Your task to perform on an android device: turn on notifications settings in the gmail app Image 0: 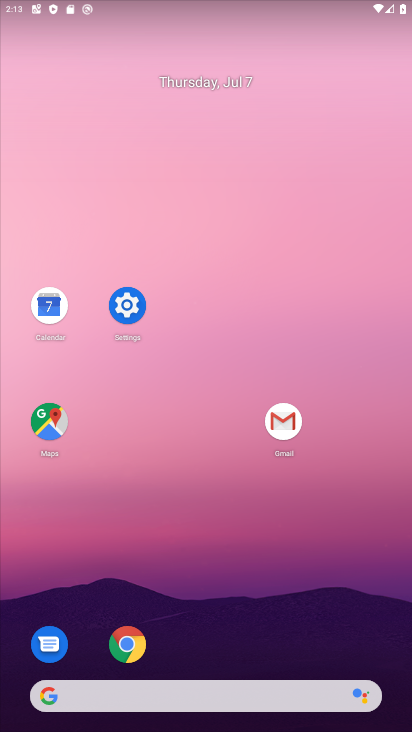
Step 0: click (281, 415)
Your task to perform on an android device: turn on notifications settings in the gmail app Image 1: 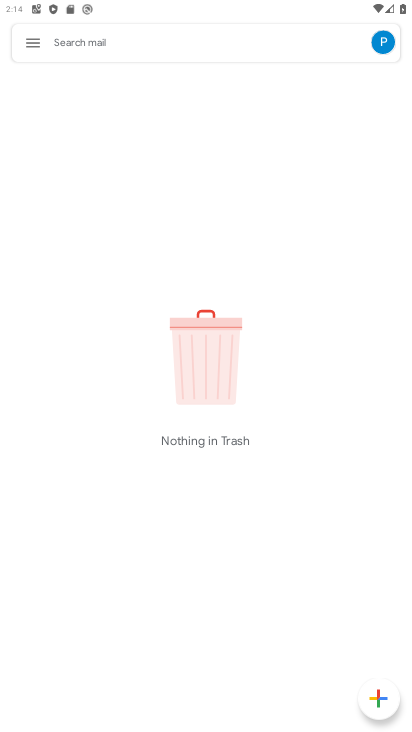
Step 1: click (28, 44)
Your task to perform on an android device: turn on notifications settings in the gmail app Image 2: 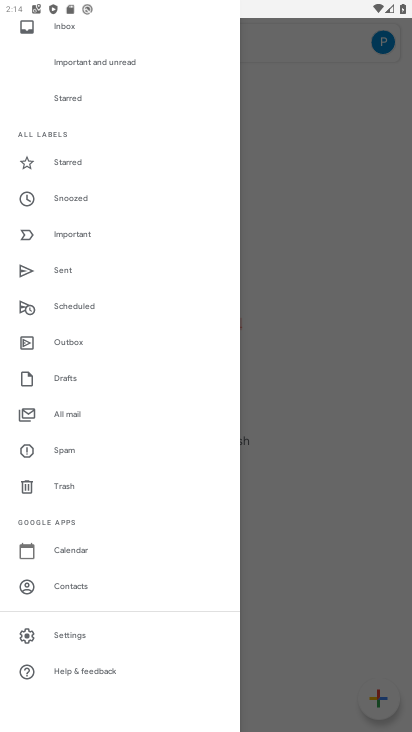
Step 2: click (70, 641)
Your task to perform on an android device: turn on notifications settings in the gmail app Image 3: 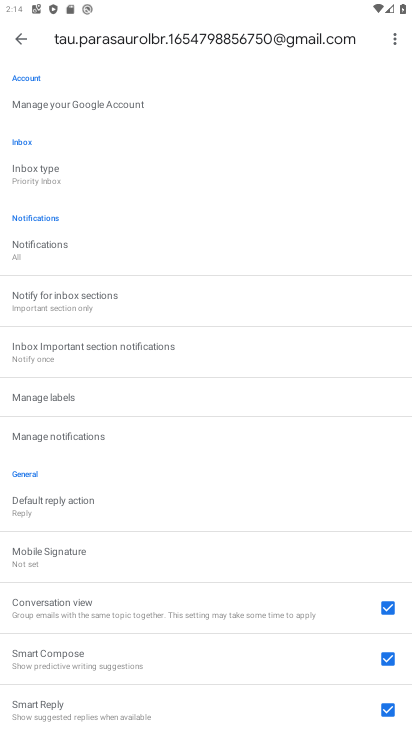
Step 3: click (44, 245)
Your task to perform on an android device: turn on notifications settings in the gmail app Image 4: 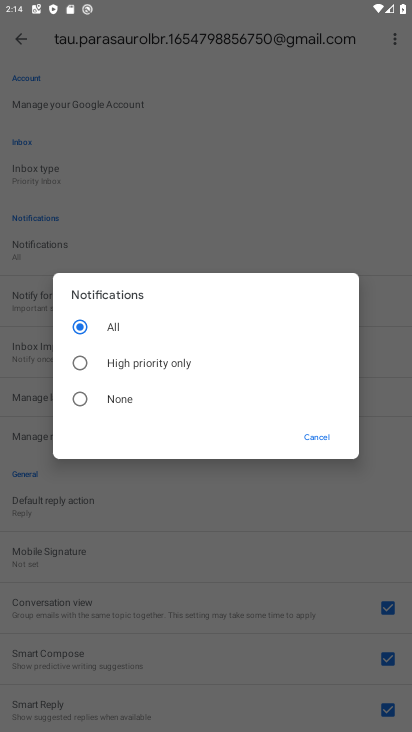
Step 4: click (79, 167)
Your task to perform on an android device: turn on notifications settings in the gmail app Image 5: 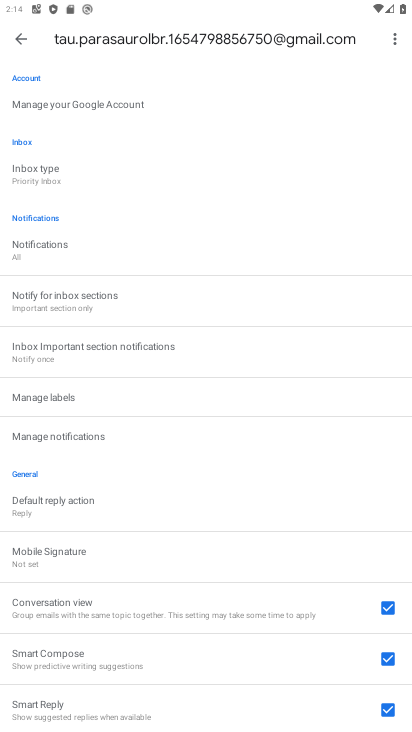
Step 5: click (308, 439)
Your task to perform on an android device: turn on notifications settings in the gmail app Image 6: 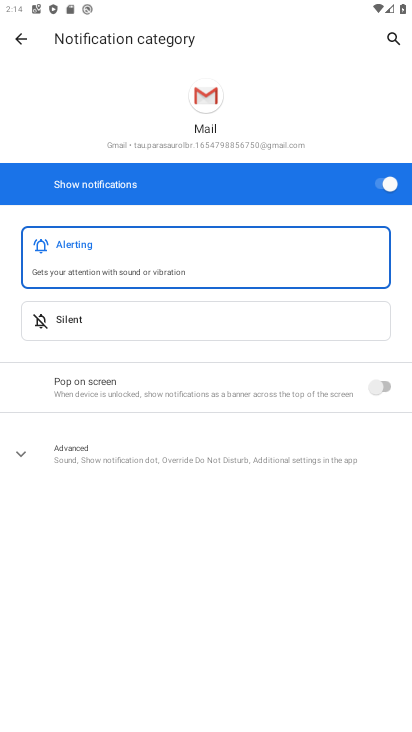
Step 6: click (18, 42)
Your task to perform on an android device: turn on notifications settings in the gmail app Image 7: 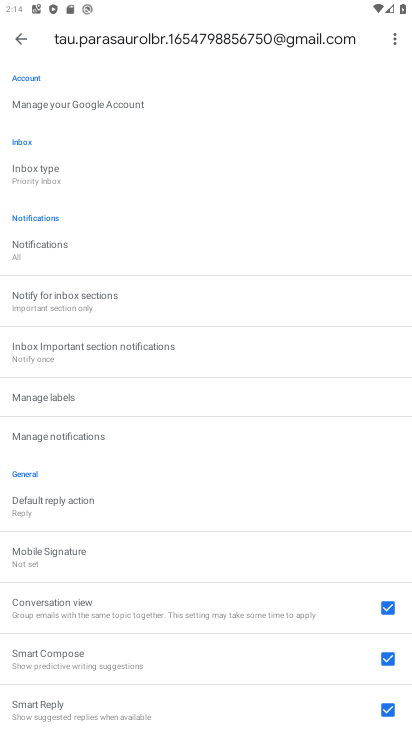
Step 7: drag from (359, 58) to (321, 466)
Your task to perform on an android device: turn on notifications settings in the gmail app Image 8: 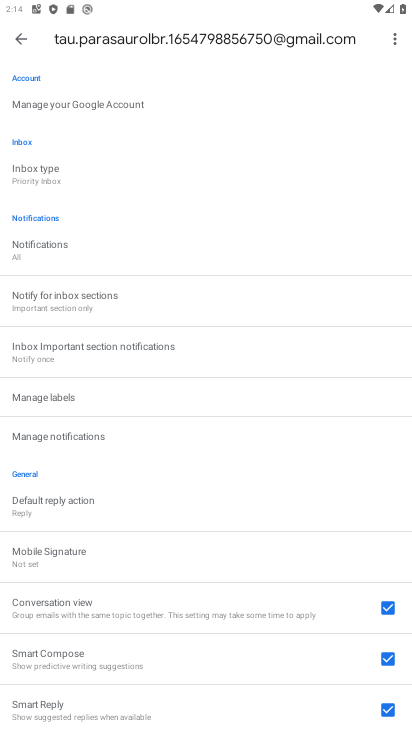
Step 8: click (46, 242)
Your task to perform on an android device: turn on notifications settings in the gmail app Image 9: 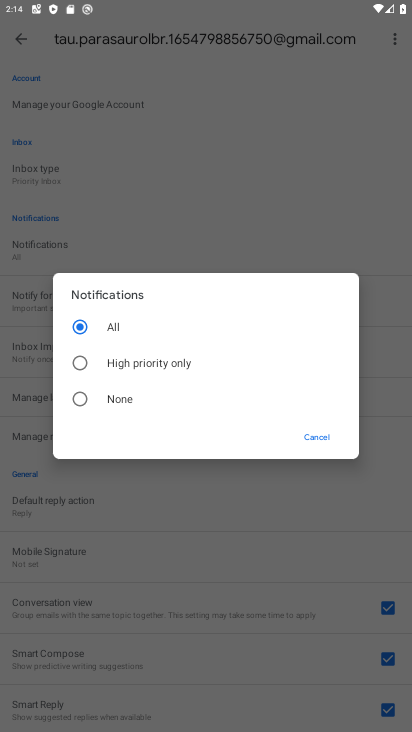
Step 9: task complete